Your task to perform on an android device: Go to Yahoo.com Image 0: 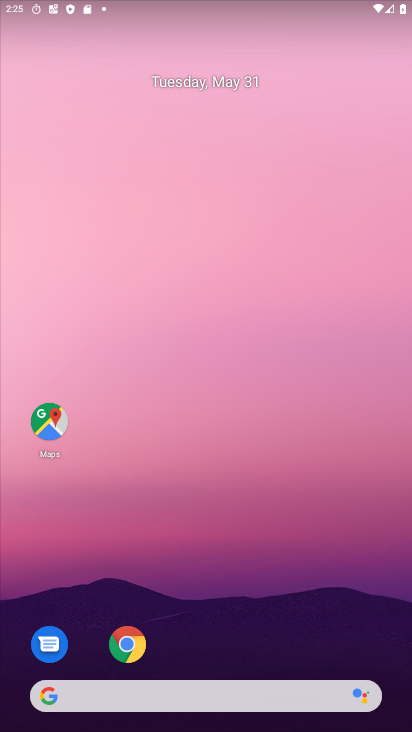
Step 0: click (128, 647)
Your task to perform on an android device: Go to Yahoo.com Image 1: 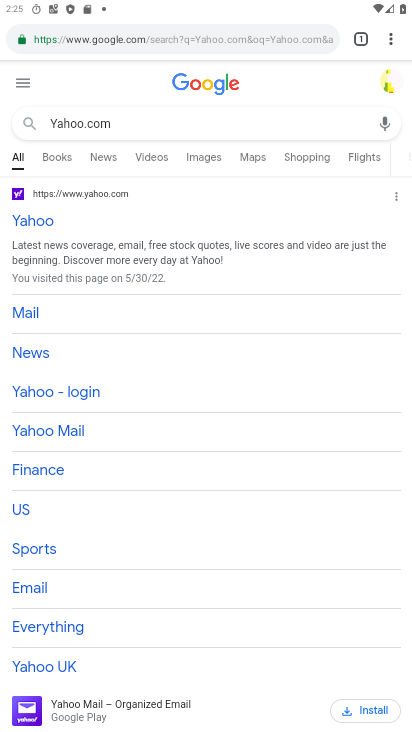
Step 1: task complete